Your task to perform on an android device: Turn on the flashlight Image 0: 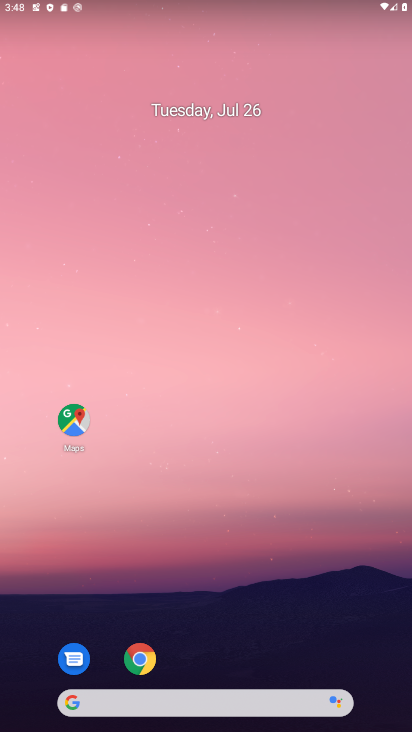
Step 0: drag from (261, 610) to (278, 152)
Your task to perform on an android device: Turn on the flashlight Image 1: 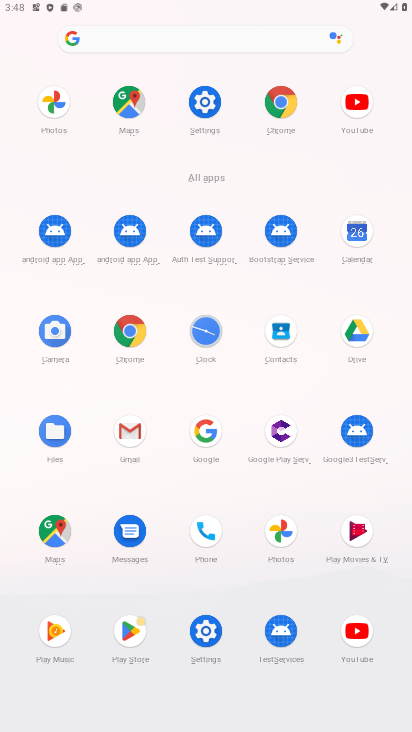
Step 1: click (209, 107)
Your task to perform on an android device: Turn on the flashlight Image 2: 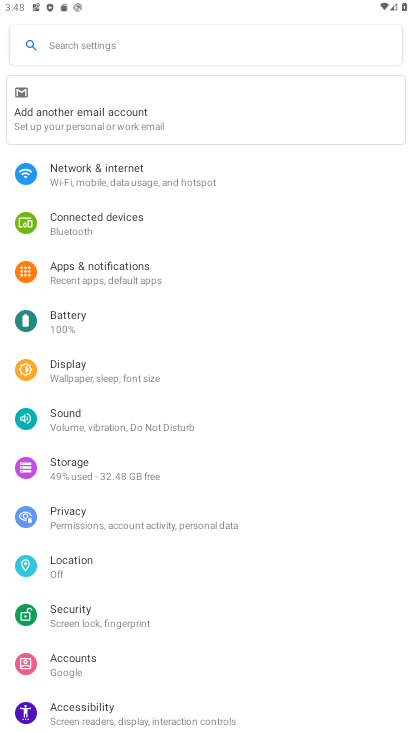
Step 2: task complete